Your task to perform on an android device: change the upload size in google photos Image 0: 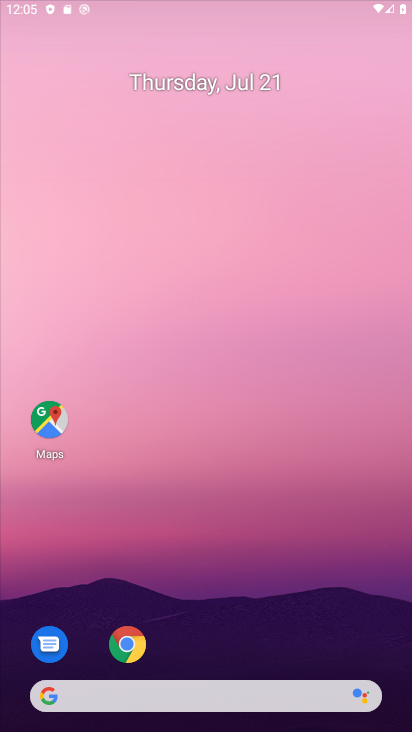
Step 0: press home button
Your task to perform on an android device: change the upload size in google photos Image 1: 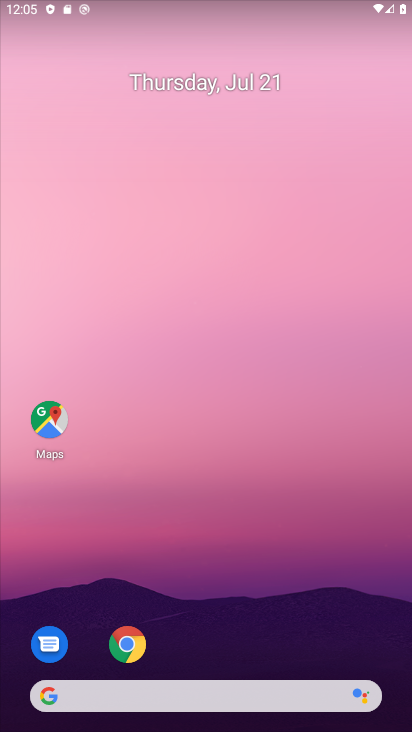
Step 1: drag from (283, 641) to (152, 106)
Your task to perform on an android device: change the upload size in google photos Image 2: 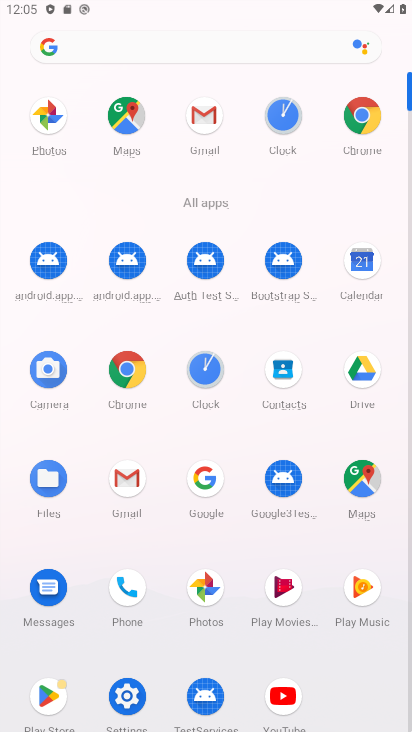
Step 2: click (210, 601)
Your task to perform on an android device: change the upload size in google photos Image 3: 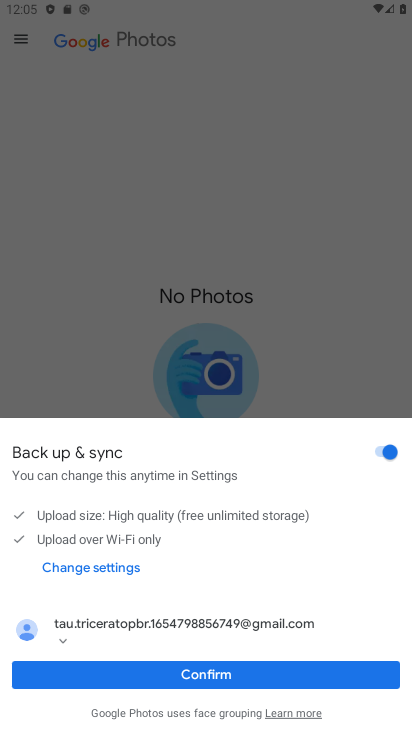
Step 3: click (144, 676)
Your task to perform on an android device: change the upload size in google photos Image 4: 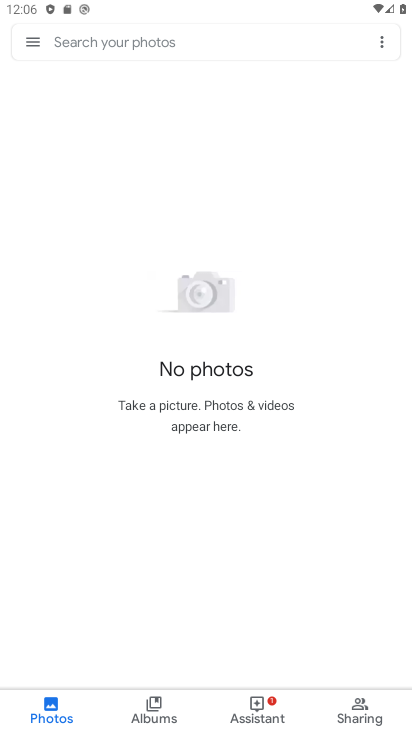
Step 4: click (19, 39)
Your task to perform on an android device: change the upload size in google photos Image 5: 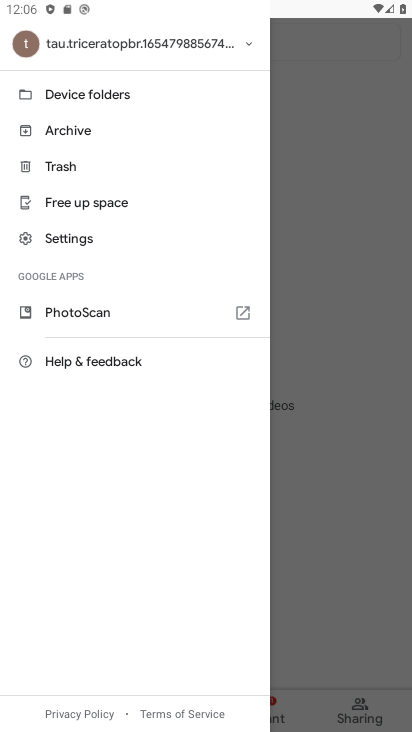
Step 5: click (60, 231)
Your task to perform on an android device: change the upload size in google photos Image 6: 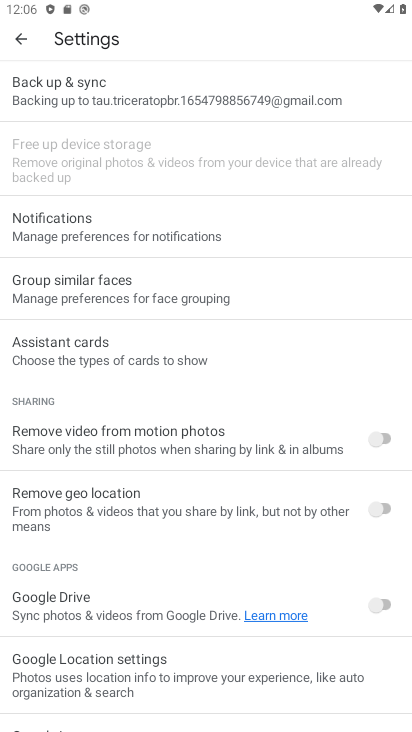
Step 6: click (107, 87)
Your task to perform on an android device: change the upload size in google photos Image 7: 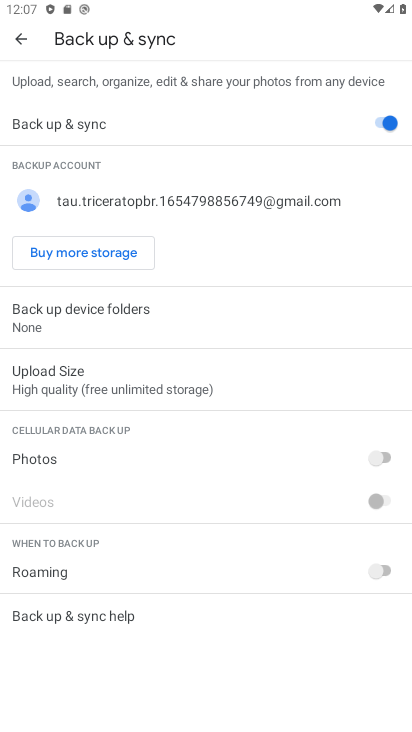
Step 7: click (52, 385)
Your task to perform on an android device: change the upload size in google photos Image 8: 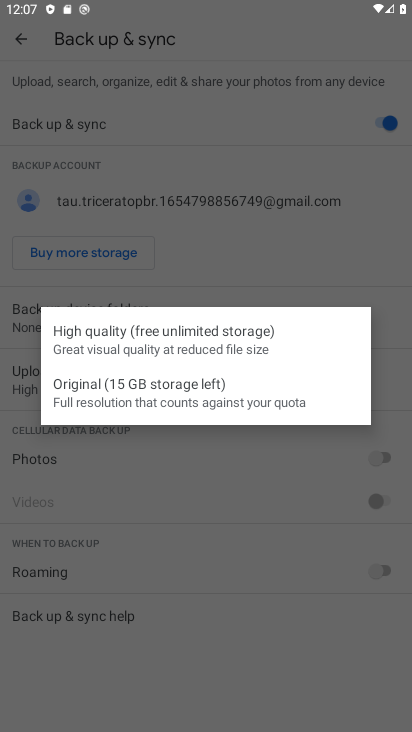
Step 8: click (120, 388)
Your task to perform on an android device: change the upload size in google photos Image 9: 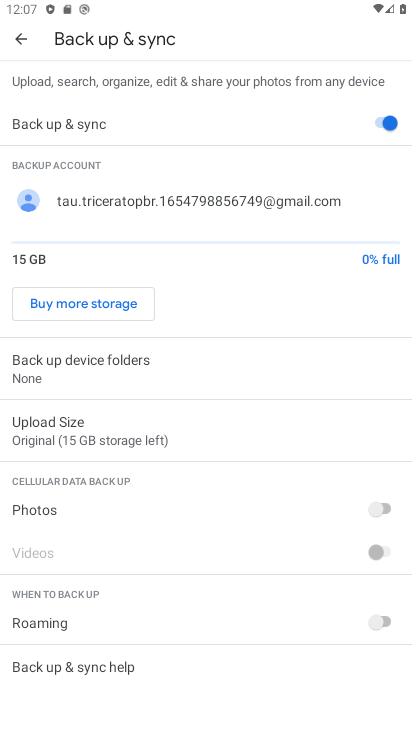
Step 9: task complete